Your task to perform on an android device: Go to Maps Image 0: 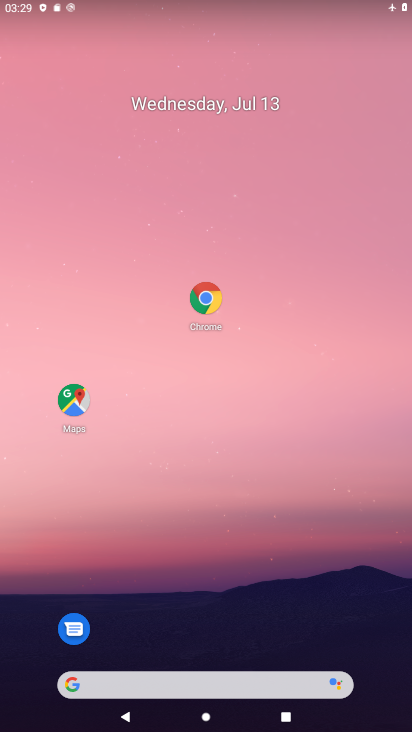
Step 0: click (71, 397)
Your task to perform on an android device: Go to Maps Image 1: 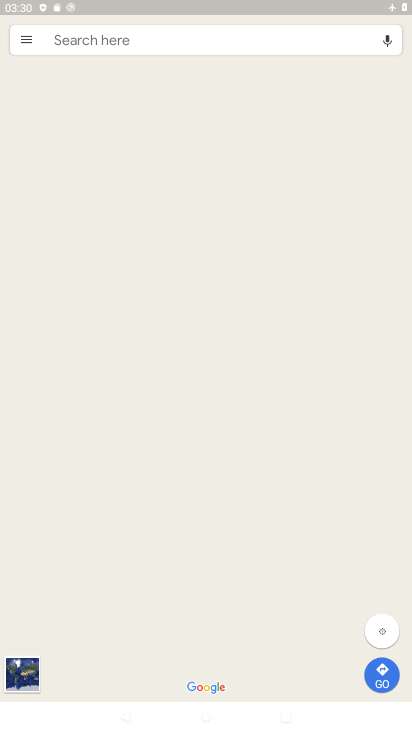
Step 1: task complete